Your task to perform on an android device: turn off location Image 0: 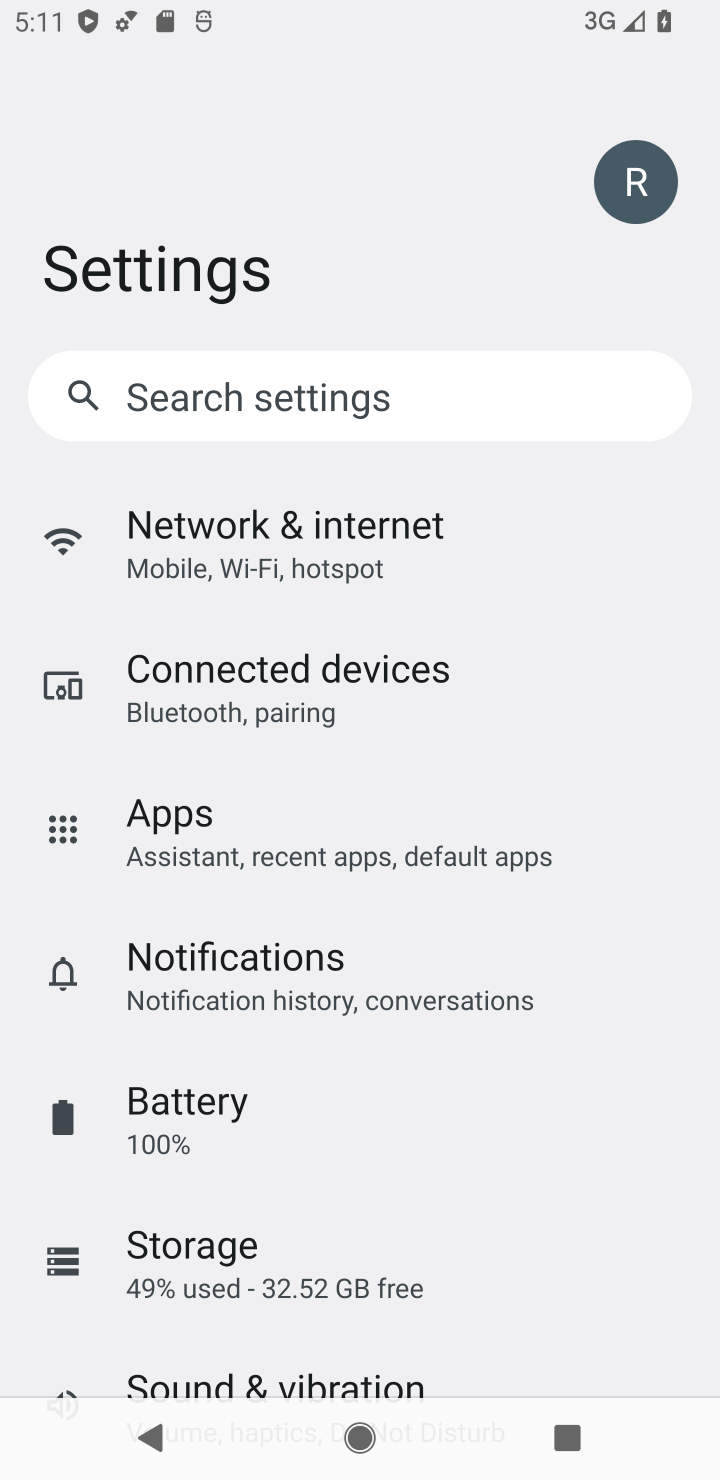
Step 0: drag from (482, 1221) to (596, 92)
Your task to perform on an android device: turn off location Image 1: 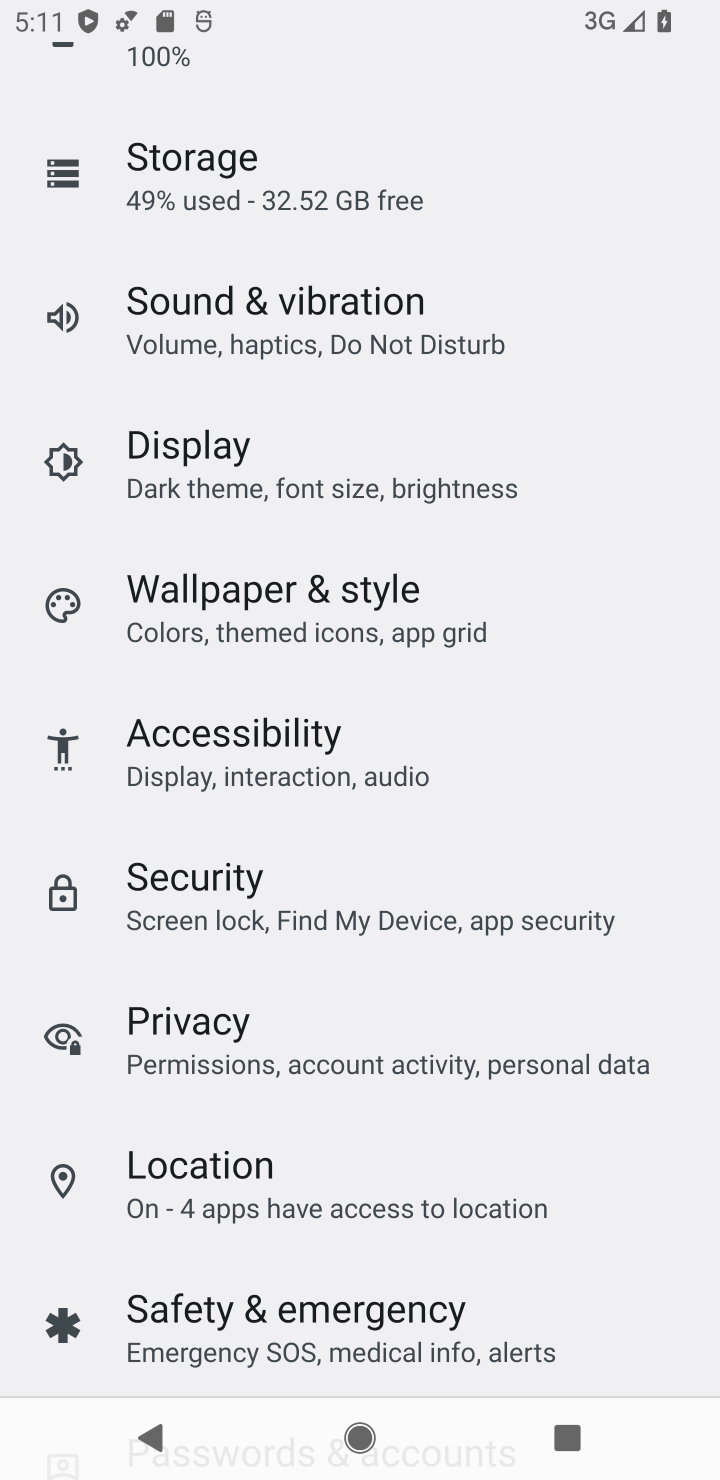
Step 1: click (281, 1174)
Your task to perform on an android device: turn off location Image 2: 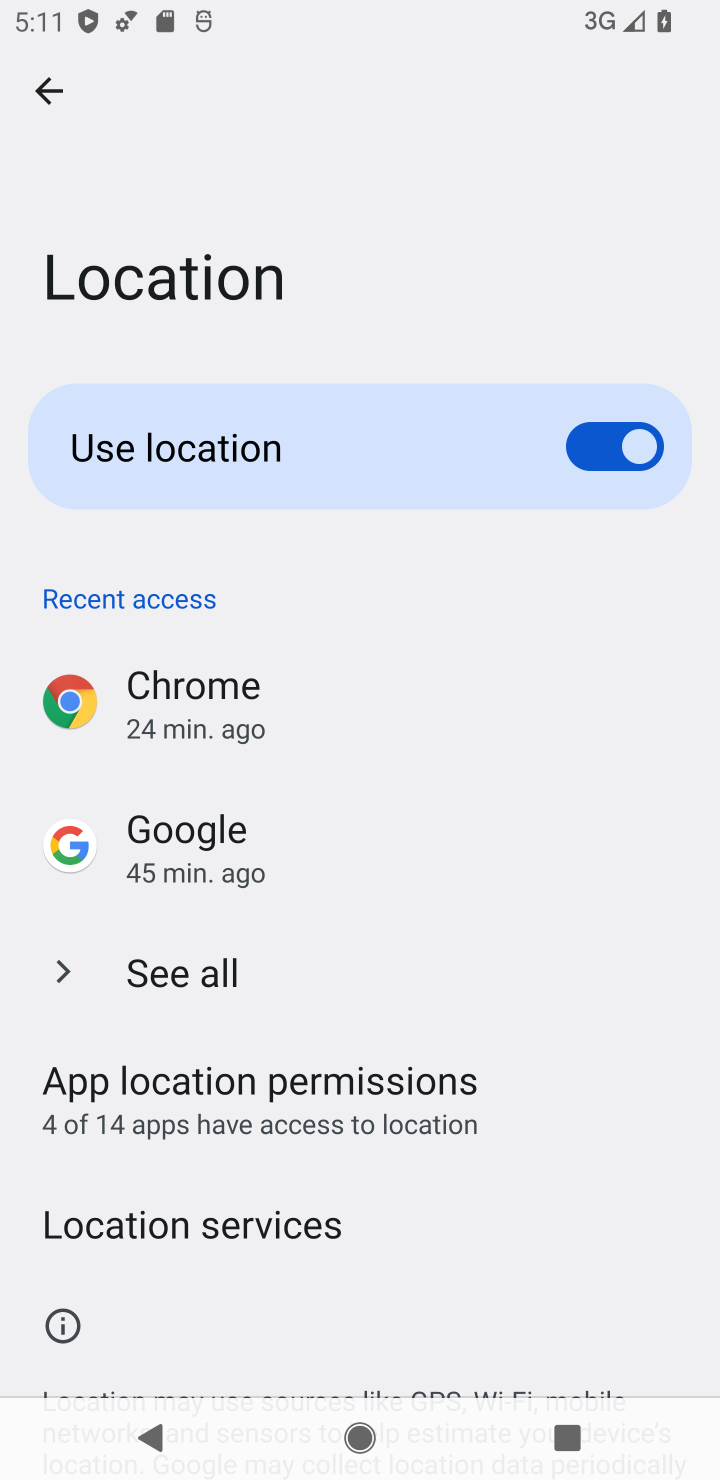
Step 2: click (592, 445)
Your task to perform on an android device: turn off location Image 3: 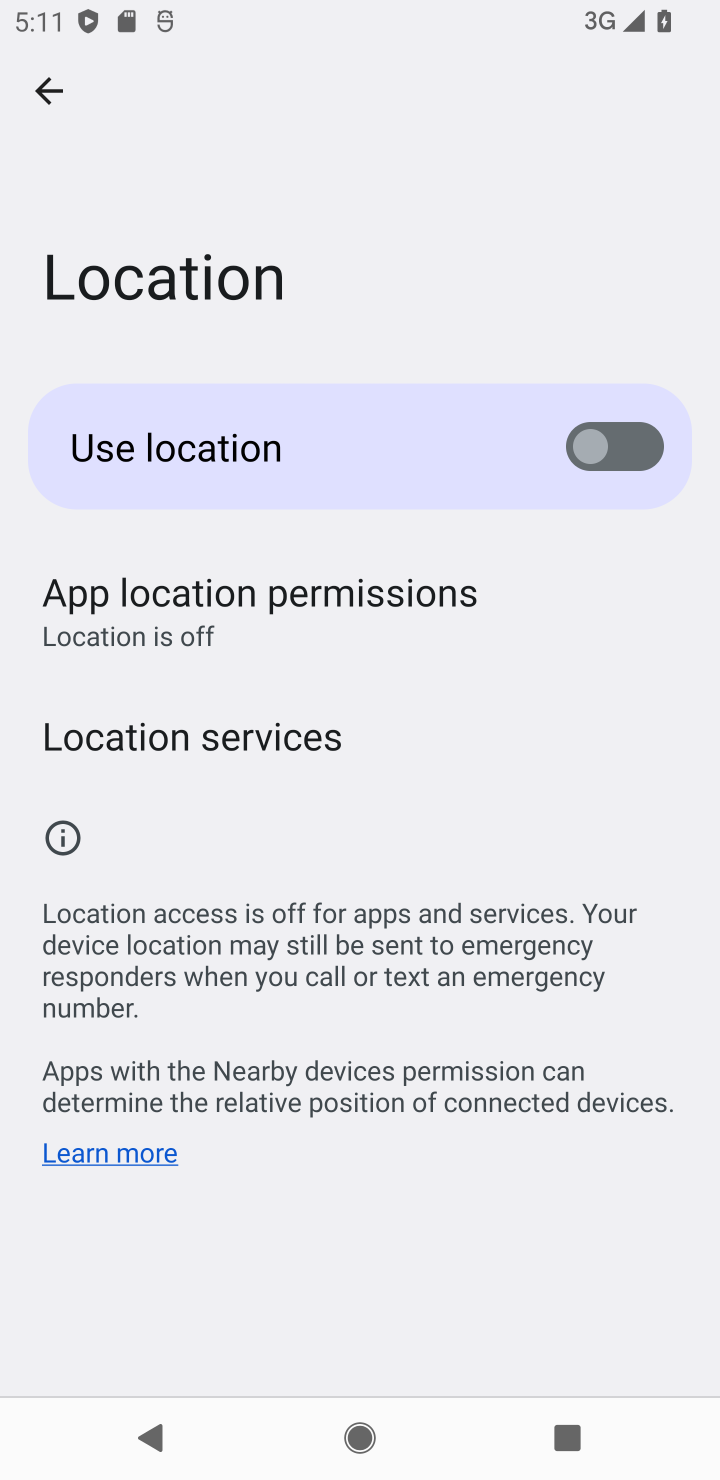
Step 3: task complete